Your task to perform on an android device: Search for Italian restaurants on Maps Image 0: 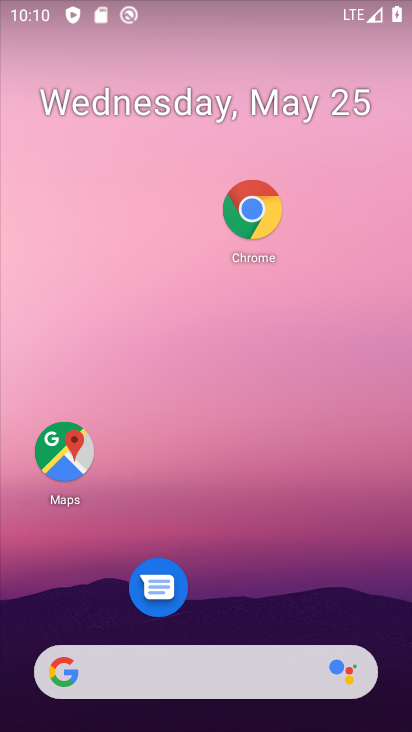
Step 0: click (67, 446)
Your task to perform on an android device: Search for Italian restaurants on Maps Image 1: 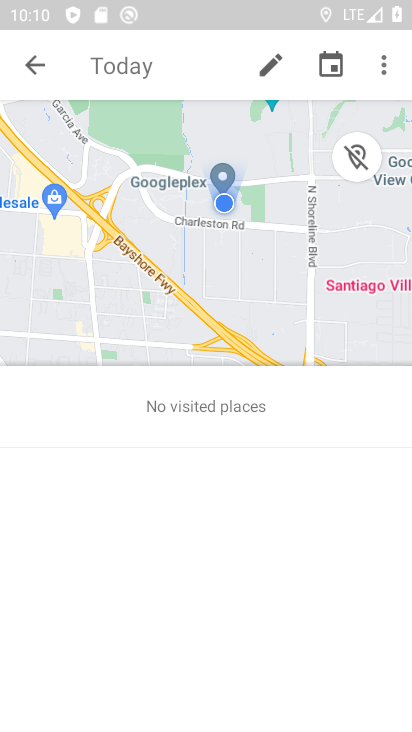
Step 1: click (31, 62)
Your task to perform on an android device: Search for Italian restaurants on Maps Image 2: 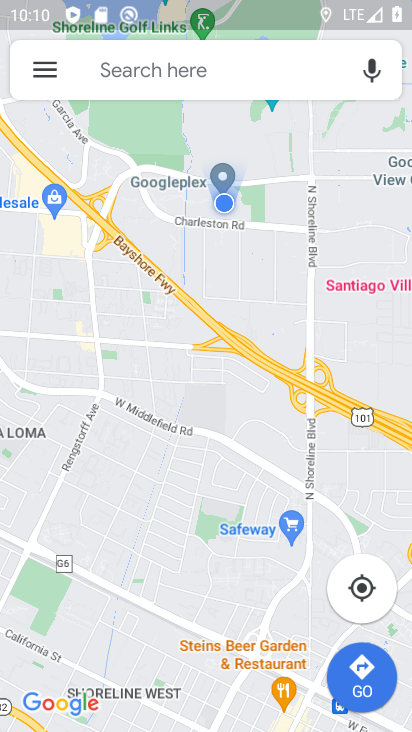
Step 2: click (218, 82)
Your task to perform on an android device: Search for Italian restaurants on Maps Image 3: 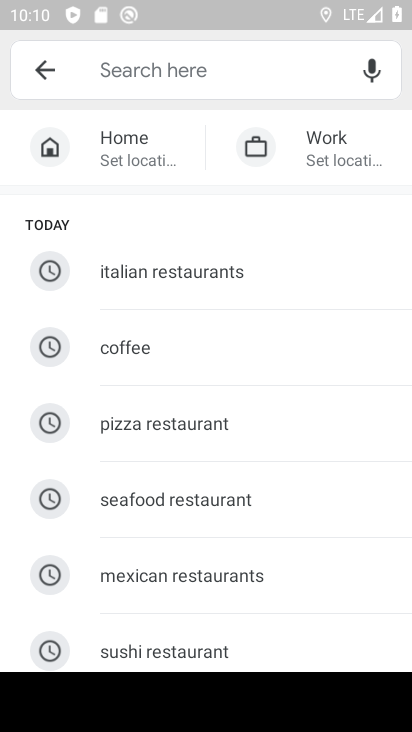
Step 3: click (208, 266)
Your task to perform on an android device: Search for Italian restaurants on Maps Image 4: 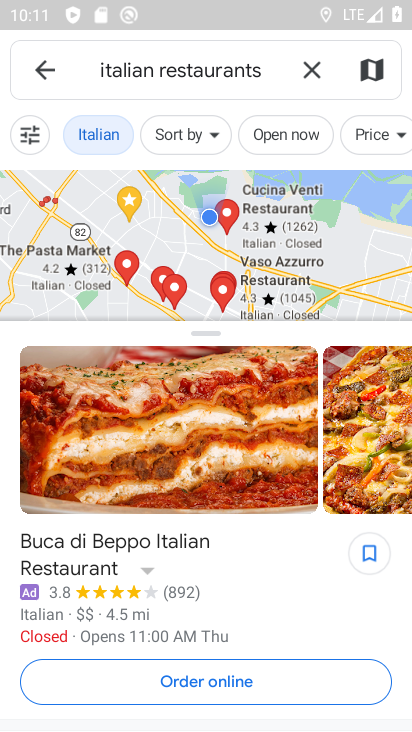
Step 4: task complete